Your task to perform on an android device: change the clock display to analog Image 0: 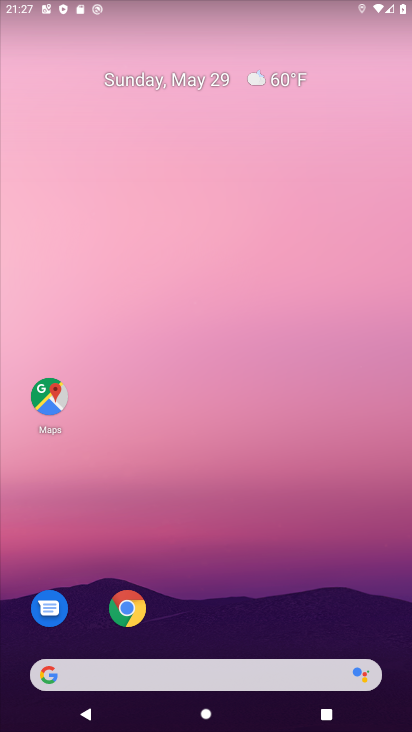
Step 0: drag from (364, 614) to (392, 219)
Your task to perform on an android device: change the clock display to analog Image 1: 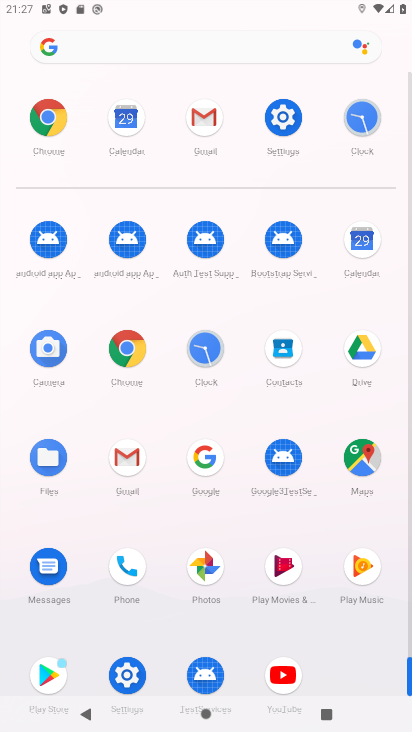
Step 1: click (207, 356)
Your task to perform on an android device: change the clock display to analog Image 2: 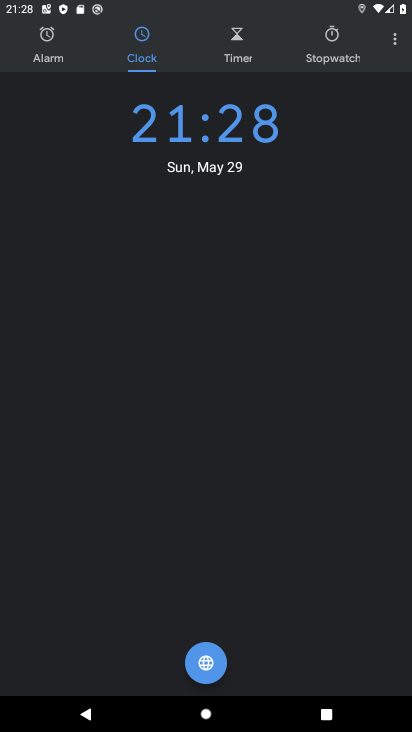
Step 2: click (397, 47)
Your task to perform on an android device: change the clock display to analog Image 3: 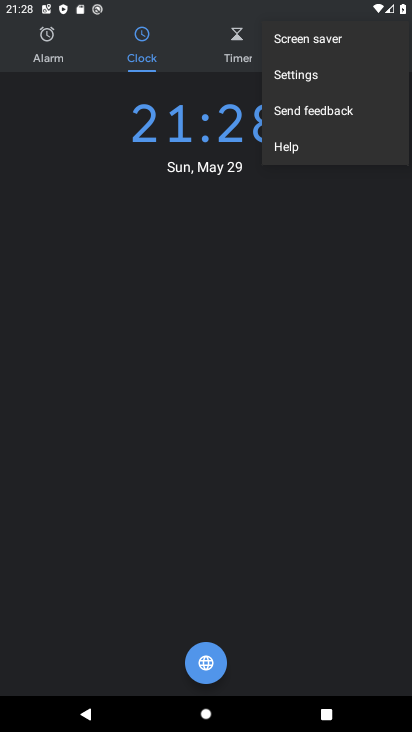
Step 3: click (337, 76)
Your task to perform on an android device: change the clock display to analog Image 4: 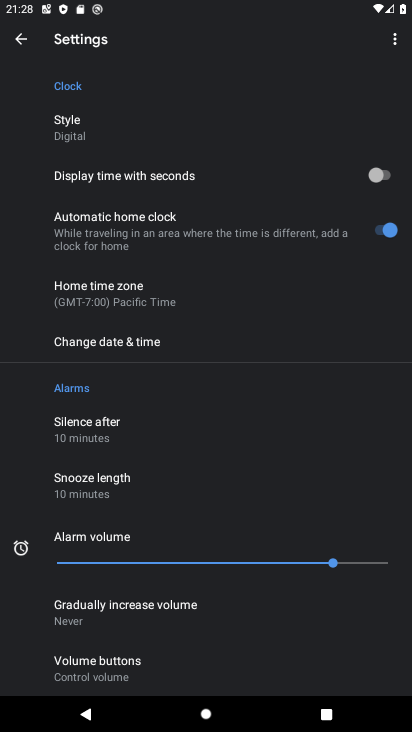
Step 4: drag from (325, 164) to (303, 357)
Your task to perform on an android device: change the clock display to analog Image 5: 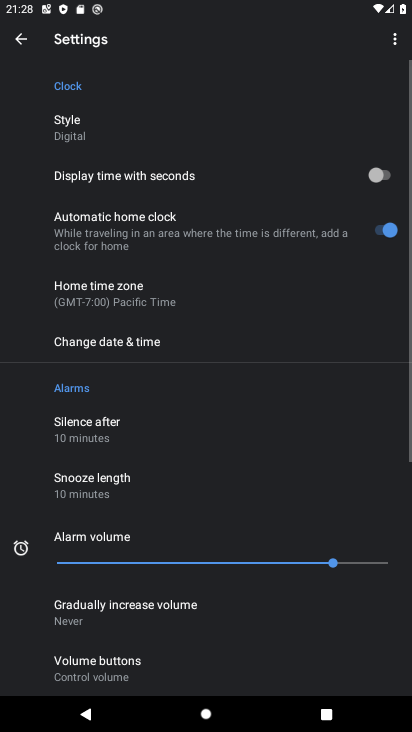
Step 5: drag from (304, 359) to (310, 239)
Your task to perform on an android device: change the clock display to analog Image 6: 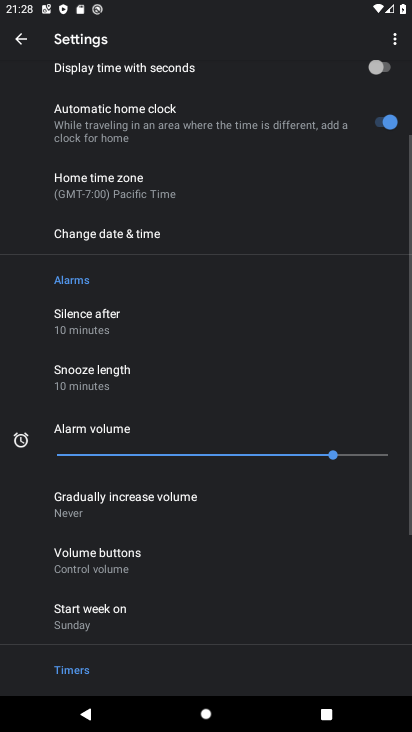
Step 6: drag from (299, 328) to (309, 217)
Your task to perform on an android device: change the clock display to analog Image 7: 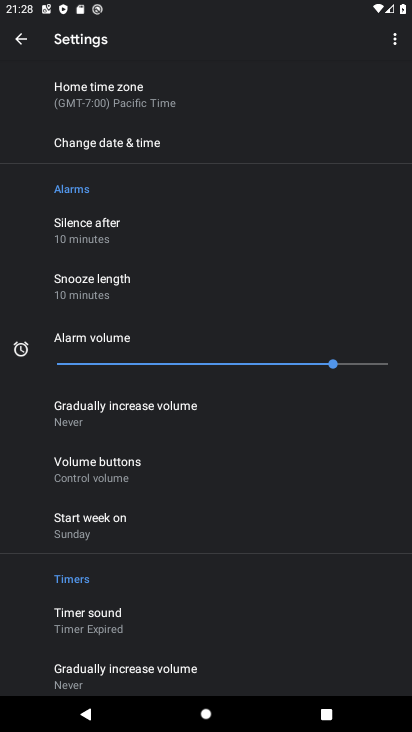
Step 7: drag from (303, 331) to (300, 196)
Your task to perform on an android device: change the clock display to analog Image 8: 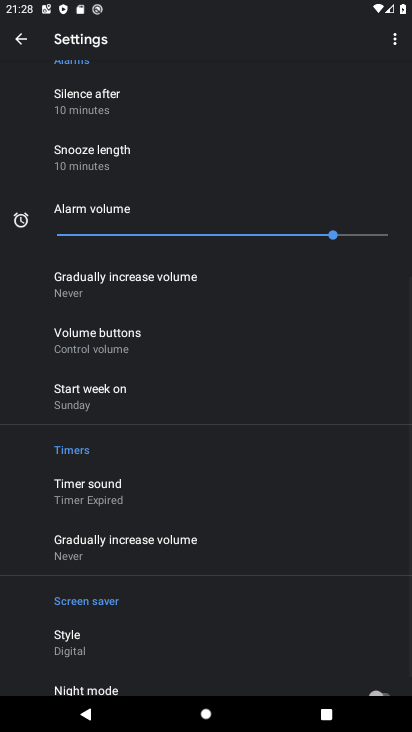
Step 8: drag from (304, 372) to (312, 239)
Your task to perform on an android device: change the clock display to analog Image 9: 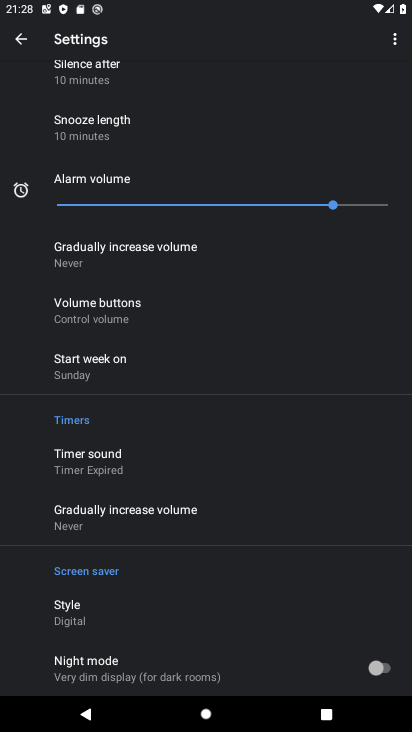
Step 9: drag from (312, 159) to (307, 255)
Your task to perform on an android device: change the clock display to analog Image 10: 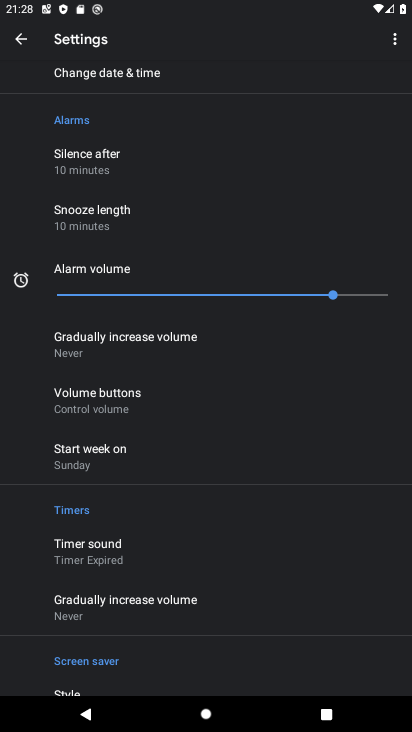
Step 10: drag from (311, 172) to (308, 266)
Your task to perform on an android device: change the clock display to analog Image 11: 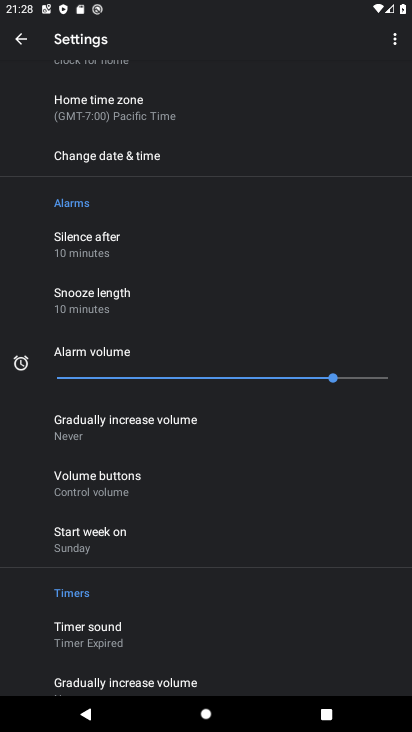
Step 11: drag from (305, 135) to (317, 338)
Your task to perform on an android device: change the clock display to analog Image 12: 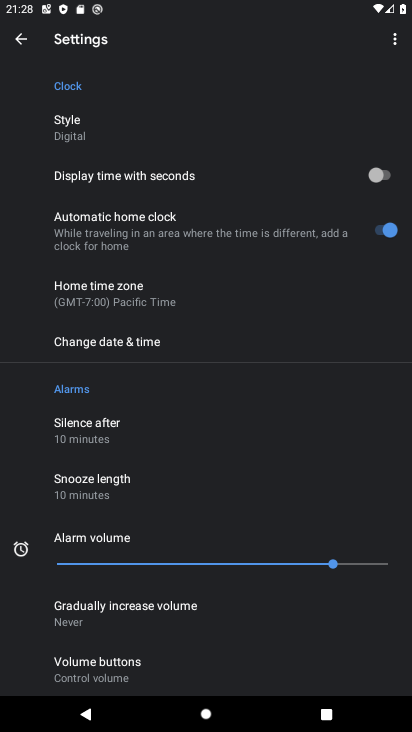
Step 12: drag from (304, 146) to (299, 284)
Your task to perform on an android device: change the clock display to analog Image 13: 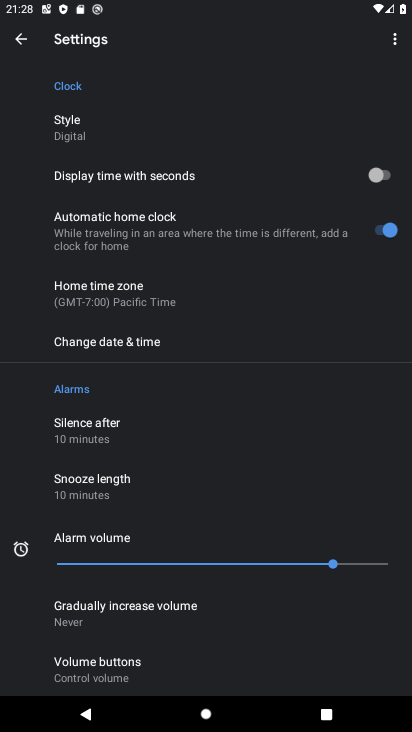
Step 13: click (77, 126)
Your task to perform on an android device: change the clock display to analog Image 14: 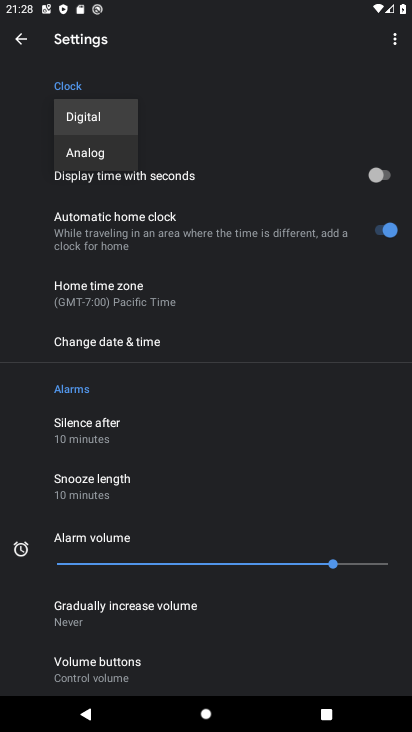
Step 14: click (118, 153)
Your task to perform on an android device: change the clock display to analog Image 15: 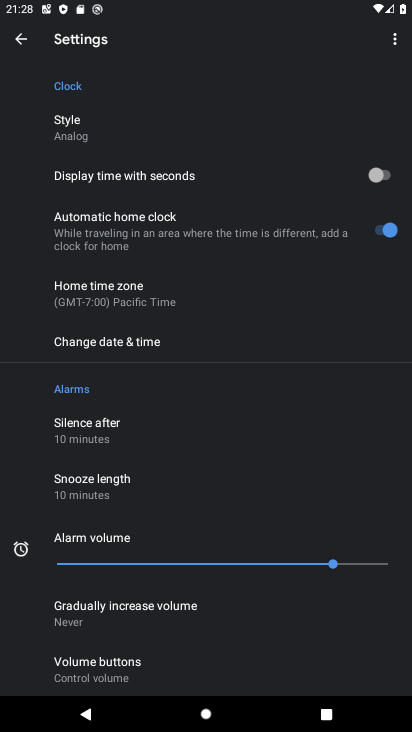
Step 15: task complete